Your task to perform on an android device: Open settings Image 0: 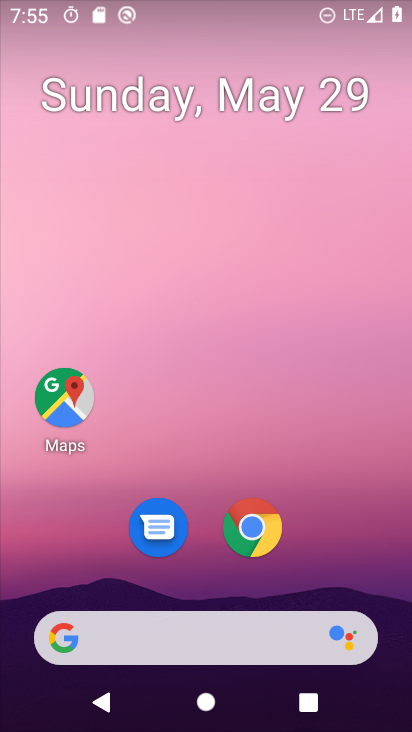
Step 0: drag from (373, 645) to (354, 42)
Your task to perform on an android device: Open settings Image 1: 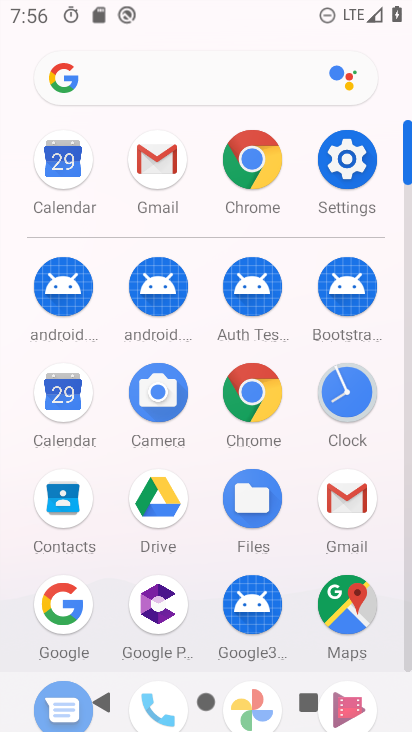
Step 1: click (339, 182)
Your task to perform on an android device: Open settings Image 2: 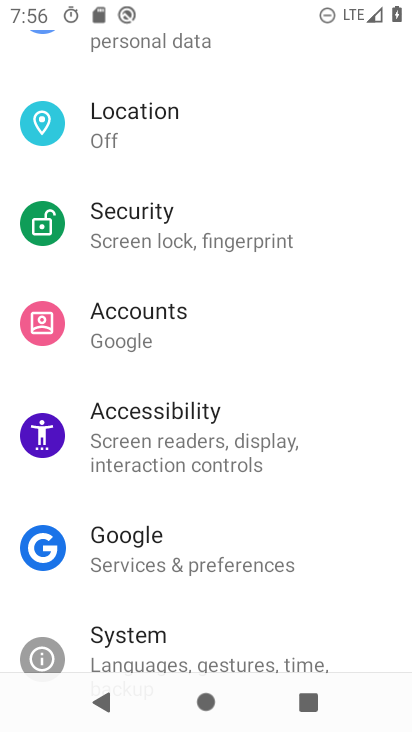
Step 2: task complete